Your task to perform on an android device: turn on data saver in the chrome app Image 0: 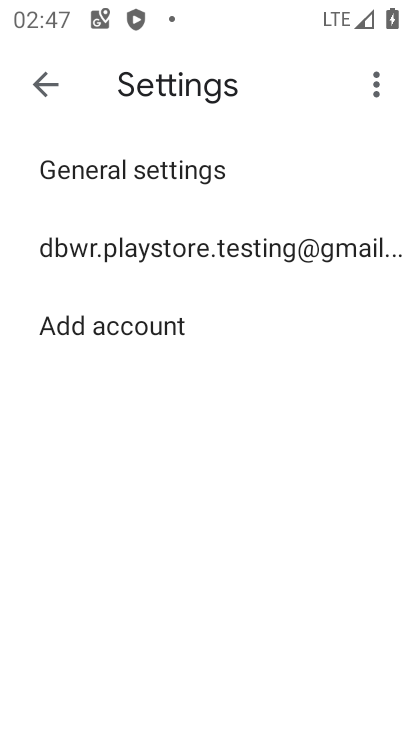
Step 0: press home button
Your task to perform on an android device: turn on data saver in the chrome app Image 1: 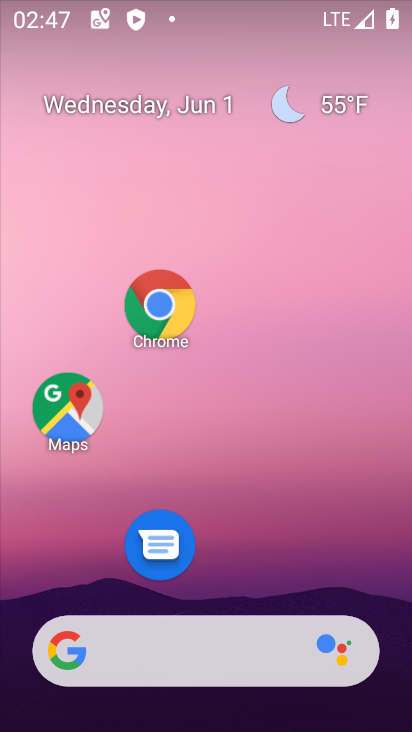
Step 1: click (159, 310)
Your task to perform on an android device: turn on data saver in the chrome app Image 2: 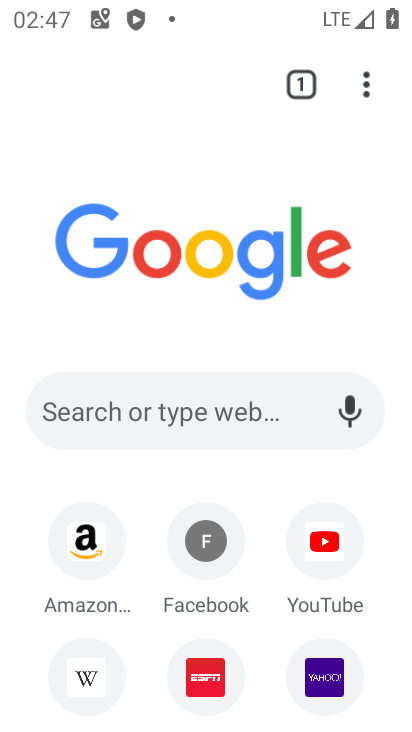
Step 2: click (360, 93)
Your task to perform on an android device: turn on data saver in the chrome app Image 3: 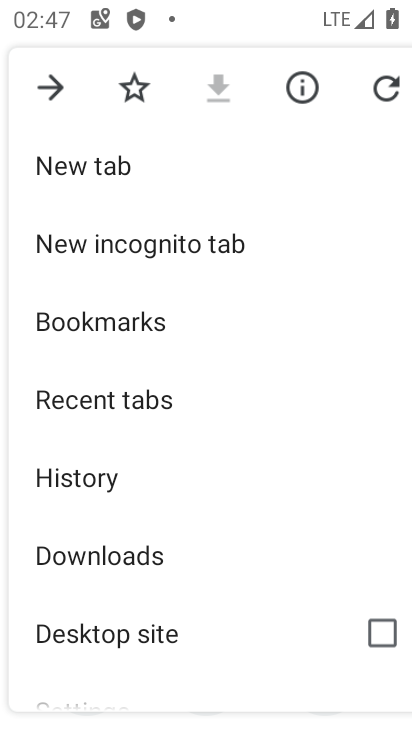
Step 3: drag from (164, 614) to (170, 330)
Your task to perform on an android device: turn on data saver in the chrome app Image 4: 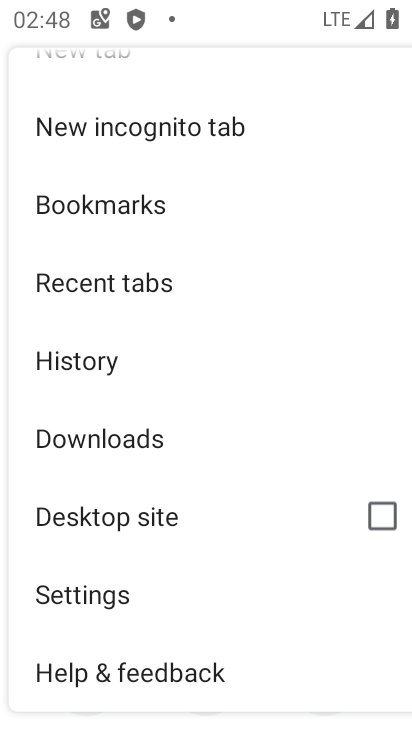
Step 4: click (60, 598)
Your task to perform on an android device: turn on data saver in the chrome app Image 5: 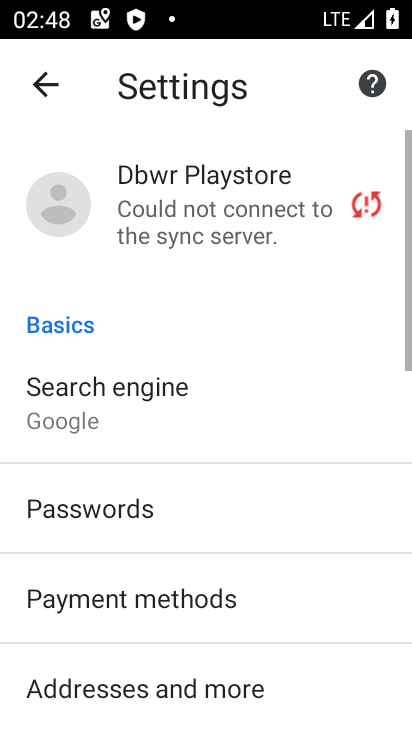
Step 5: drag from (141, 666) to (213, 411)
Your task to perform on an android device: turn on data saver in the chrome app Image 6: 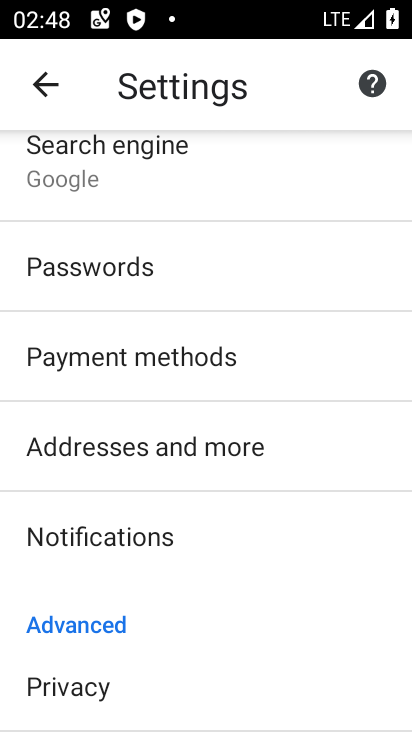
Step 6: drag from (183, 644) to (213, 367)
Your task to perform on an android device: turn on data saver in the chrome app Image 7: 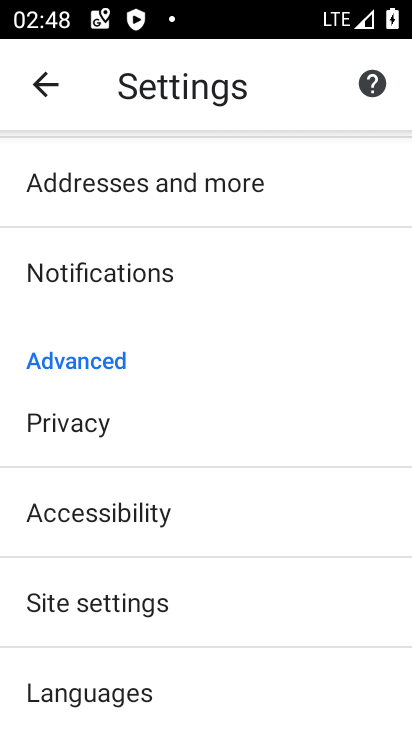
Step 7: click (107, 612)
Your task to perform on an android device: turn on data saver in the chrome app Image 8: 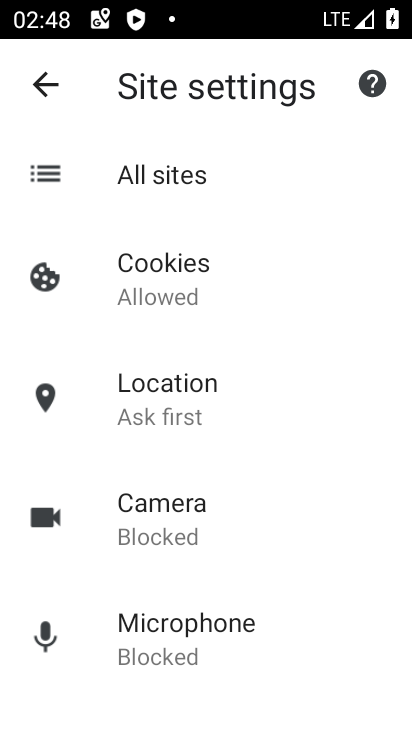
Step 8: press back button
Your task to perform on an android device: turn on data saver in the chrome app Image 9: 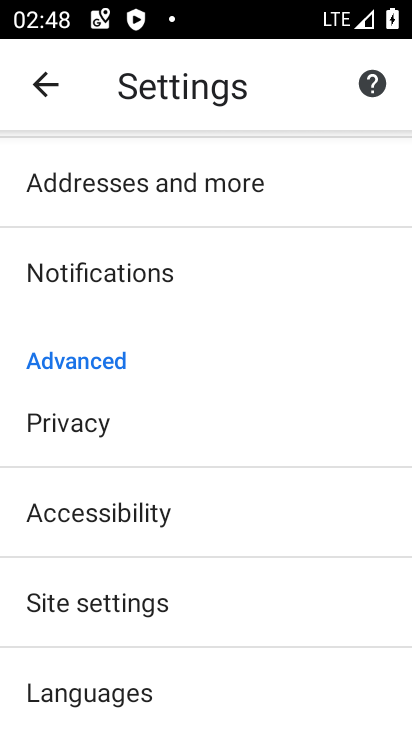
Step 9: drag from (171, 693) to (208, 514)
Your task to perform on an android device: turn on data saver in the chrome app Image 10: 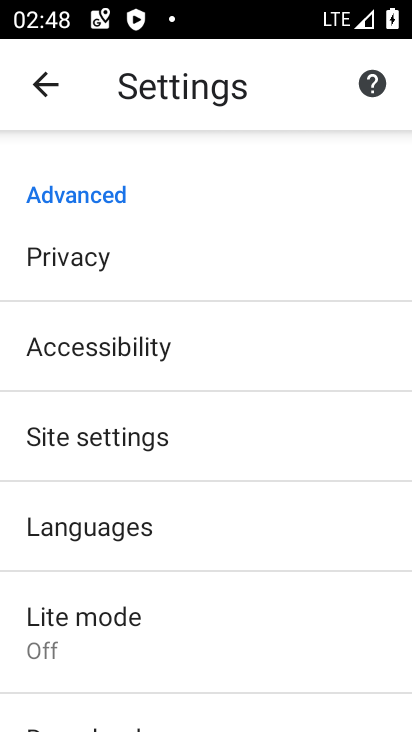
Step 10: click (131, 620)
Your task to perform on an android device: turn on data saver in the chrome app Image 11: 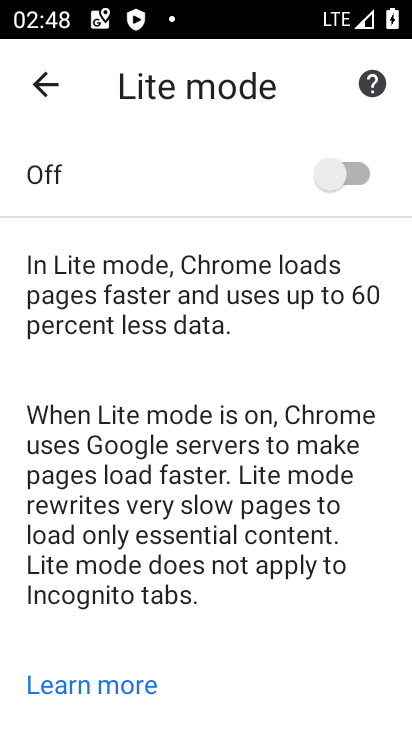
Step 11: click (353, 175)
Your task to perform on an android device: turn on data saver in the chrome app Image 12: 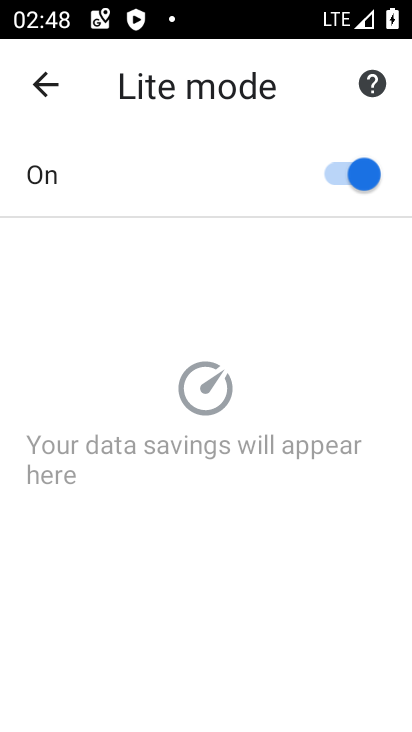
Step 12: task complete